Your task to perform on an android device: Search for sushi restaurants on Maps Image 0: 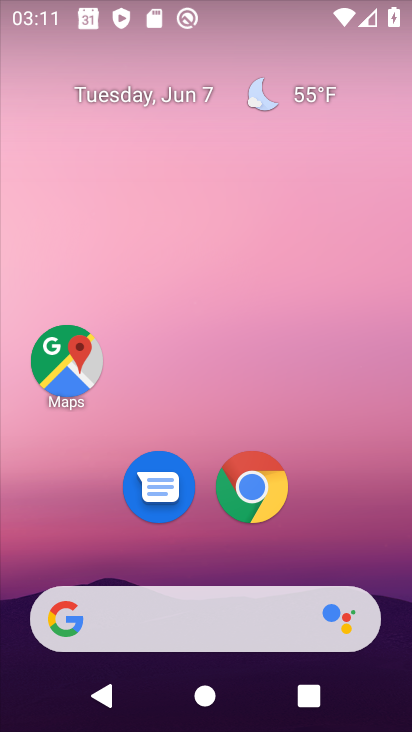
Step 0: drag from (200, 97) to (198, 34)
Your task to perform on an android device: Search for sushi restaurants on Maps Image 1: 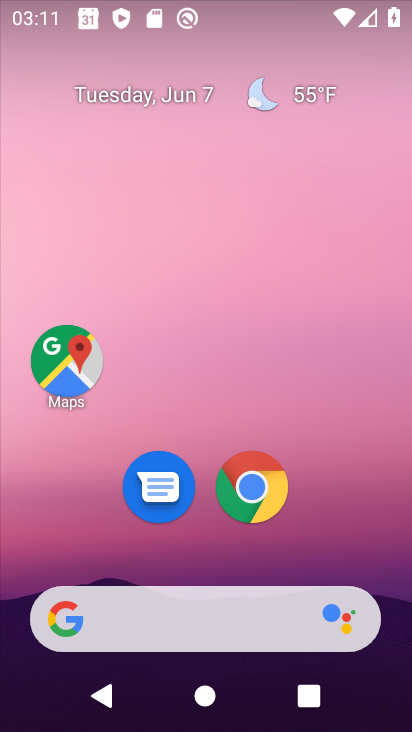
Step 1: drag from (241, 690) to (188, 253)
Your task to perform on an android device: Search for sushi restaurants on Maps Image 2: 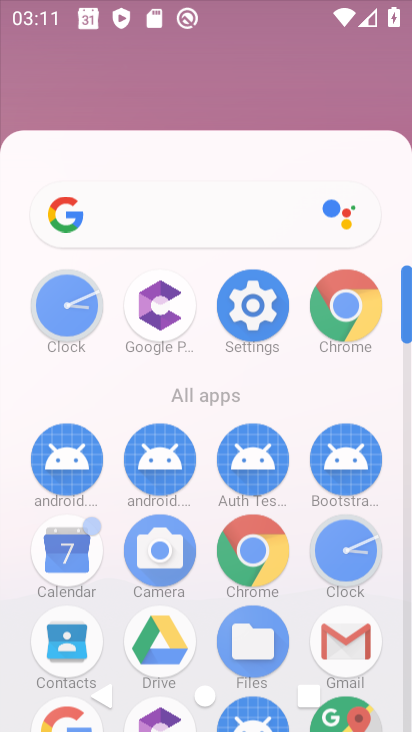
Step 2: drag from (230, 511) to (210, 126)
Your task to perform on an android device: Search for sushi restaurants on Maps Image 3: 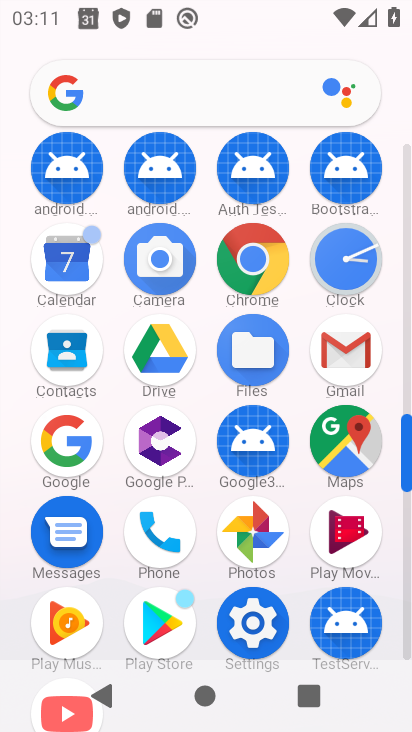
Step 3: drag from (226, 574) to (193, 186)
Your task to perform on an android device: Search for sushi restaurants on Maps Image 4: 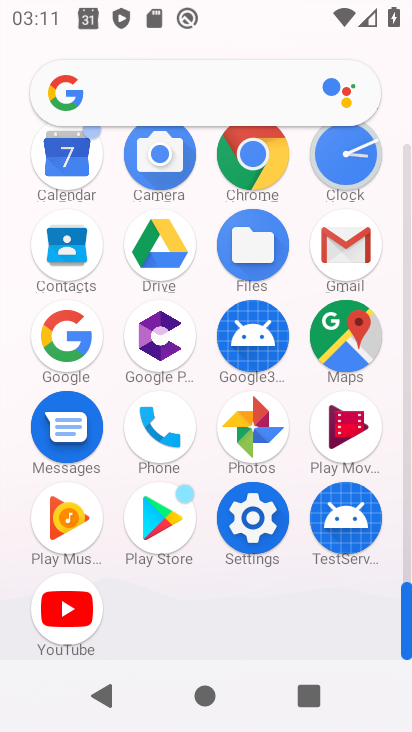
Step 4: click (349, 347)
Your task to perform on an android device: Search for sushi restaurants on Maps Image 5: 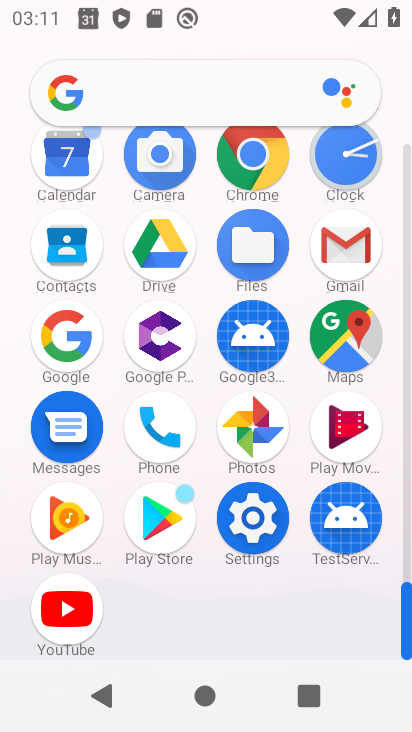
Step 5: click (350, 346)
Your task to perform on an android device: Search for sushi restaurants on Maps Image 6: 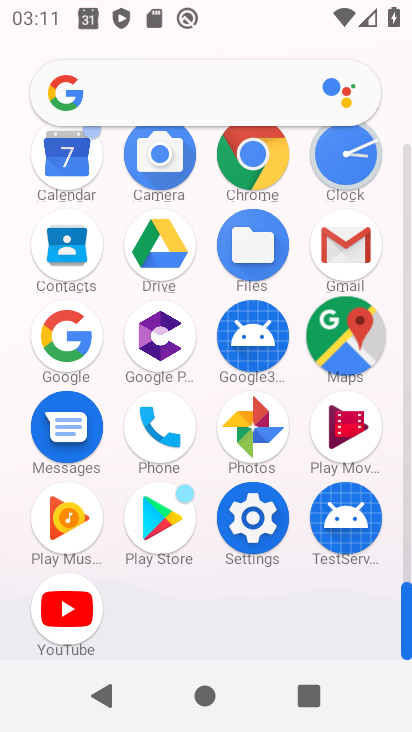
Step 6: click (351, 347)
Your task to perform on an android device: Search for sushi restaurants on Maps Image 7: 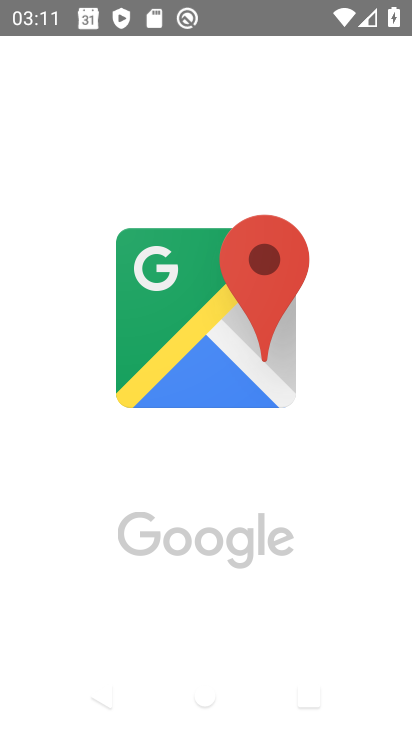
Step 7: drag from (247, 600) to (220, 230)
Your task to perform on an android device: Search for sushi restaurants on Maps Image 8: 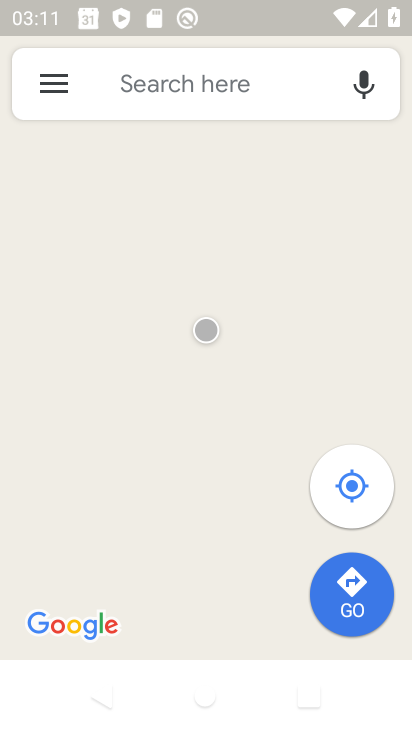
Step 8: click (45, 83)
Your task to perform on an android device: Search for sushi restaurants on Maps Image 9: 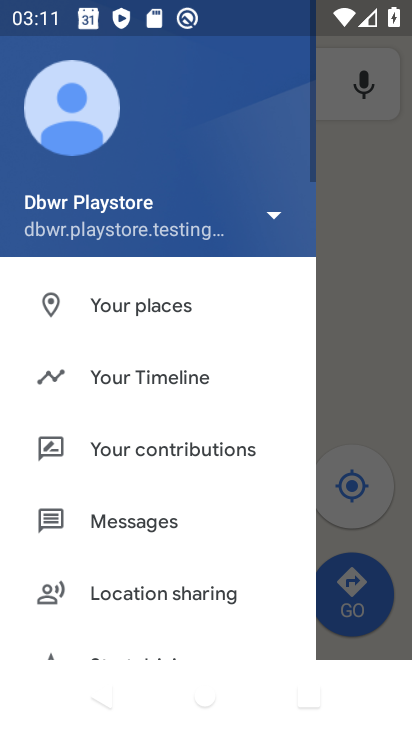
Step 9: click (328, 307)
Your task to perform on an android device: Search for sushi restaurants on Maps Image 10: 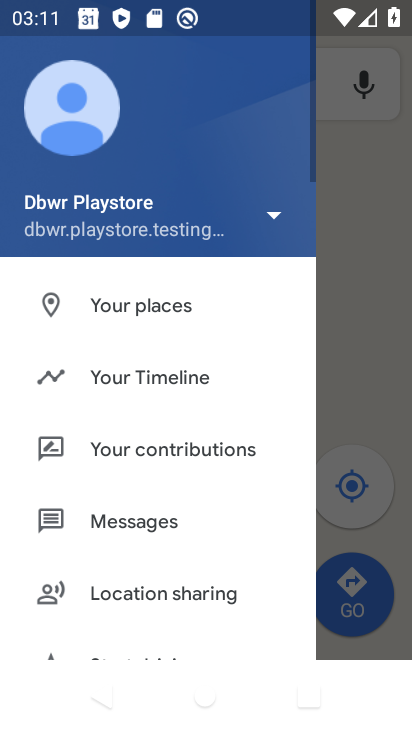
Step 10: click (328, 308)
Your task to perform on an android device: Search for sushi restaurants on Maps Image 11: 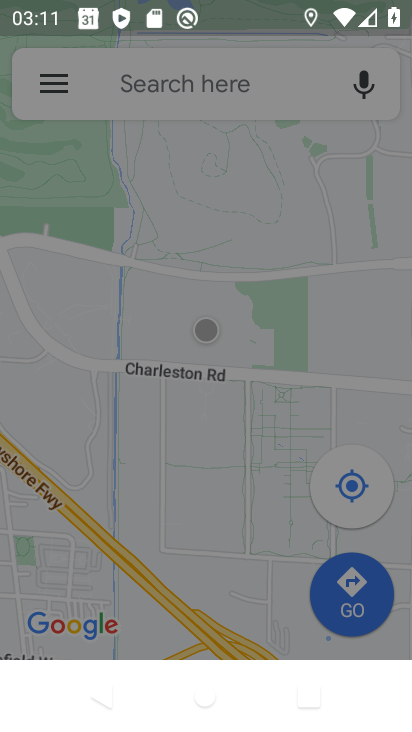
Step 11: click (265, 245)
Your task to perform on an android device: Search for sushi restaurants on Maps Image 12: 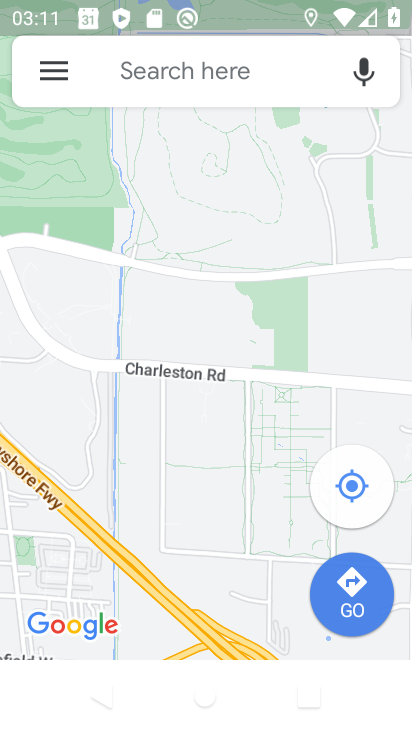
Step 12: click (106, 64)
Your task to perform on an android device: Search for sushi restaurants on Maps Image 13: 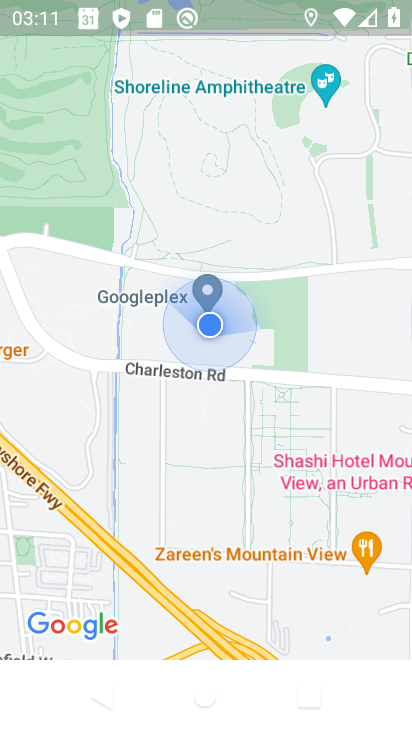
Step 13: click (126, 80)
Your task to perform on an android device: Search for sushi restaurants on Maps Image 14: 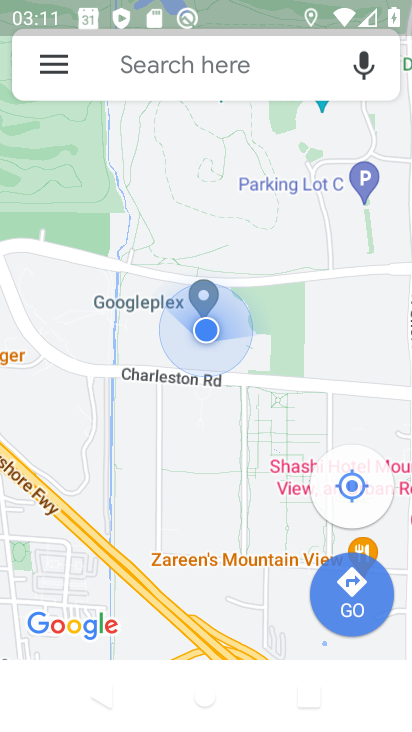
Step 14: click (128, 81)
Your task to perform on an android device: Search for sushi restaurants on Maps Image 15: 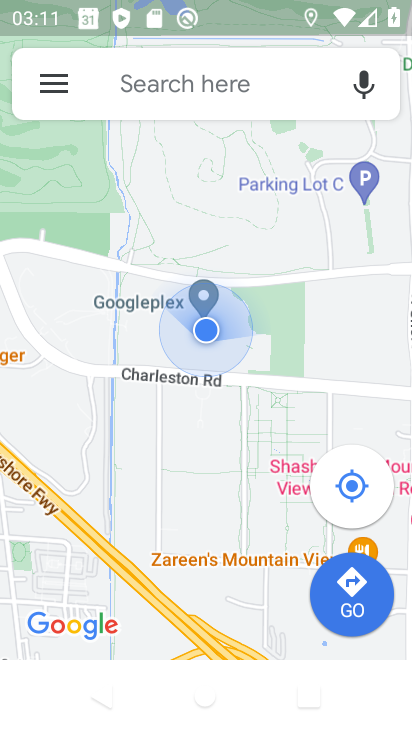
Step 15: click (118, 74)
Your task to perform on an android device: Search for sushi restaurants on Maps Image 16: 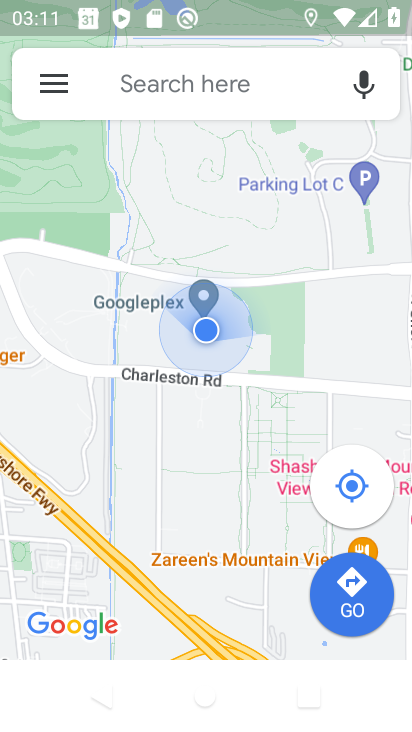
Step 16: click (118, 74)
Your task to perform on an android device: Search for sushi restaurants on Maps Image 17: 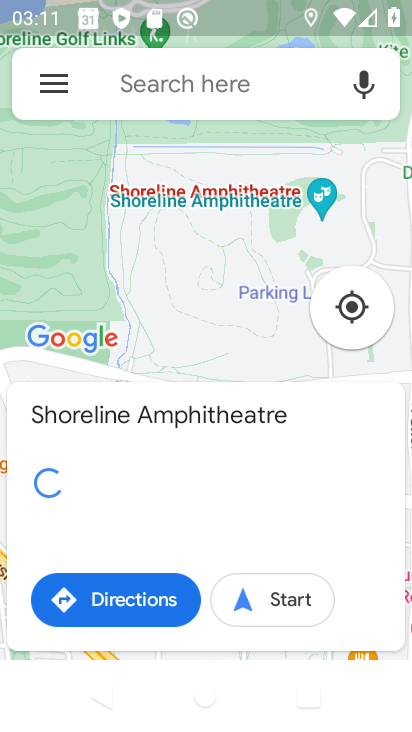
Step 17: click (120, 73)
Your task to perform on an android device: Search for sushi restaurants on Maps Image 18: 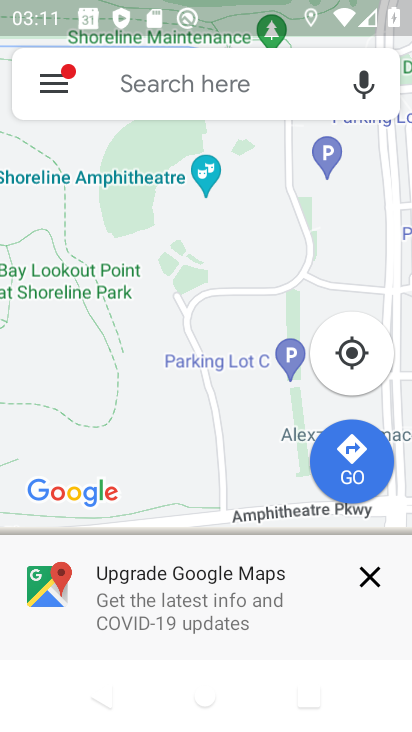
Step 18: click (121, 77)
Your task to perform on an android device: Search for sushi restaurants on Maps Image 19: 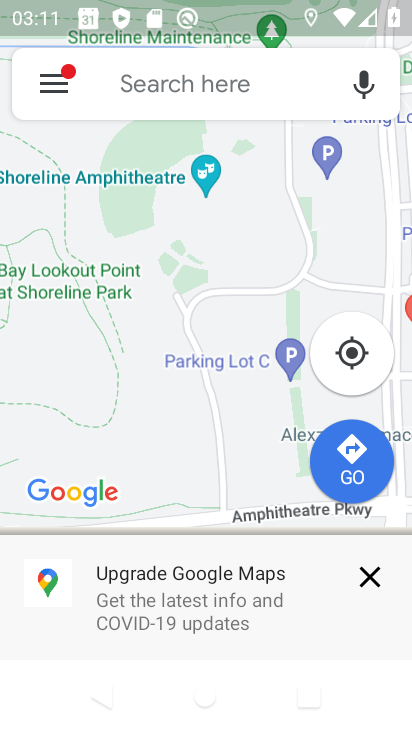
Step 19: click (121, 77)
Your task to perform on an android device: Search for sushi restaurants on Maps Image 20: 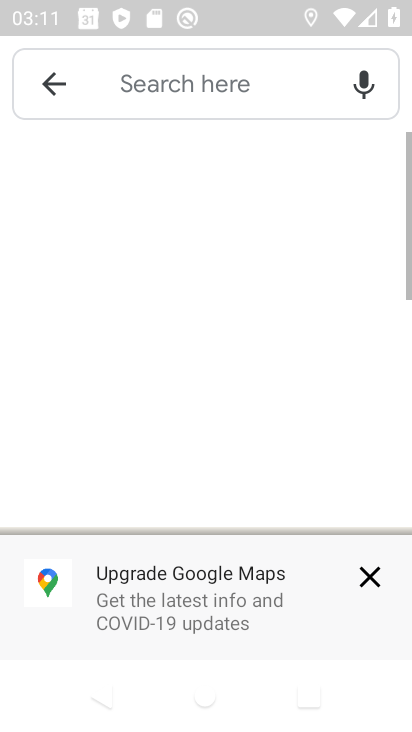
Step 20: click (122, 86)
Your task to perform on an android device: Search for sushi restaurants on Maps Image 21: 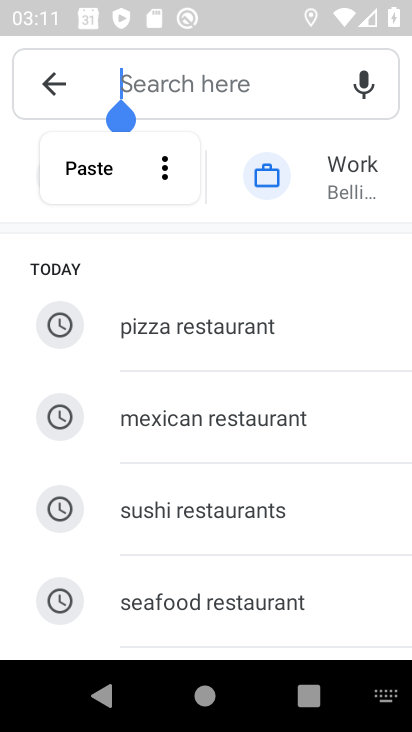
Step 21: click (185, 494)
Your task to perform on an android device: Search for sushi restaurants on Maps Image 22: 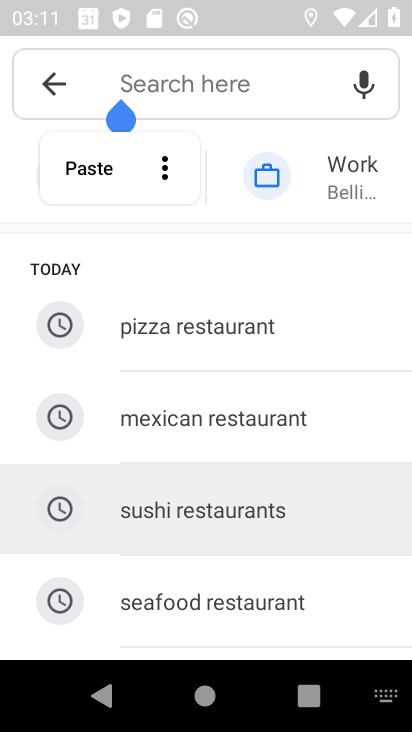
Step 22: click (185, 500)
Your task to perform on an android device: Search for sushi restaurants on Maps Image 23: 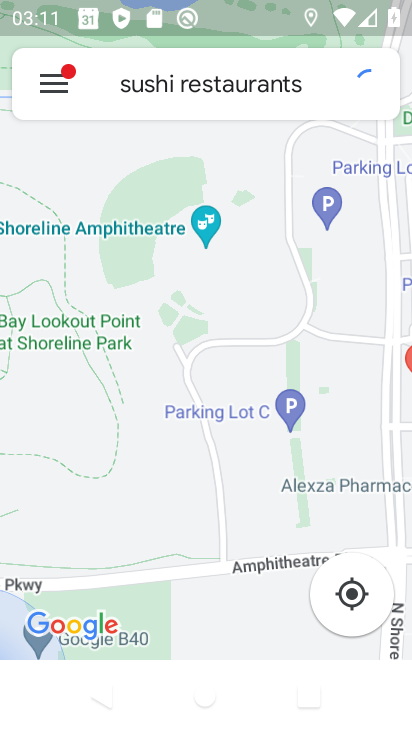
Step 23: task complete